Your task to perform on an android device: What's the weather like in Rio de Janeiro? Image 0: 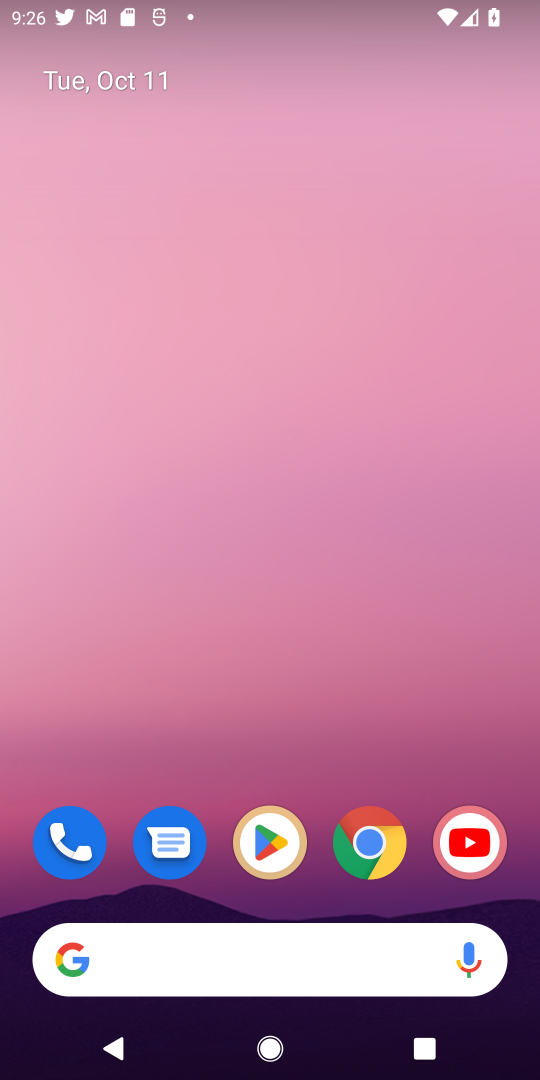
Step 0: click (388, 831)
Your task to perform on an android device: What's the weather like in Rio de Janeiro? Image 1: 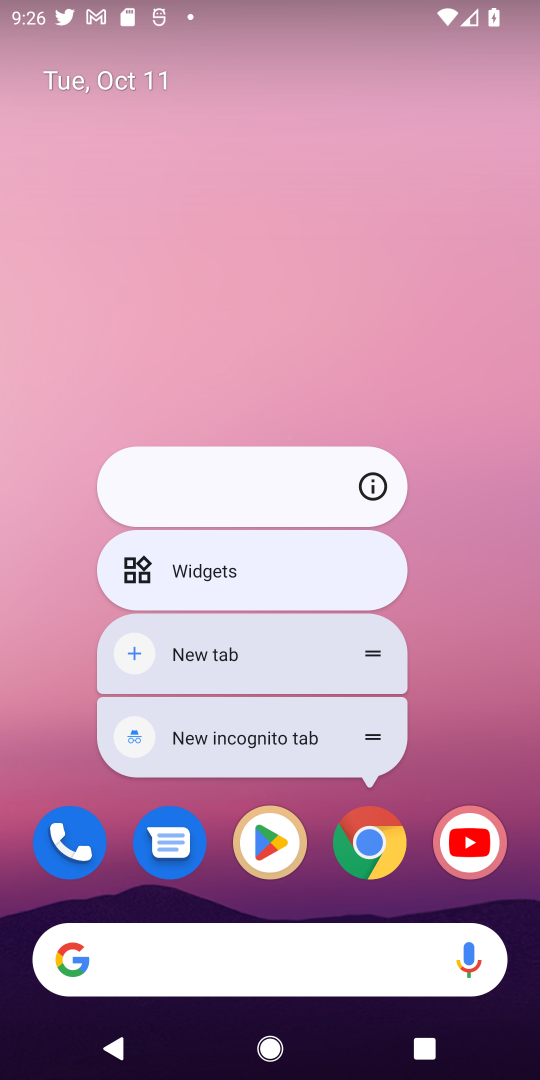
Step 1: click (380, 850)
Your task to perform on an android device: What's the weather like in Rio de Janeiro? Image 2: 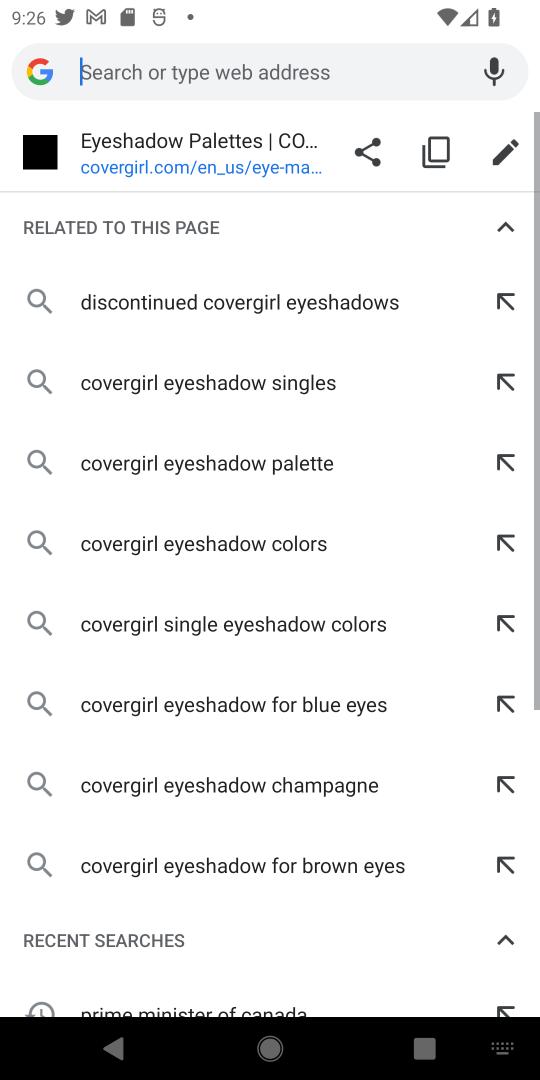
Step 2: click (189, 67)
Your task to perform on an android device: What's the weather like in Rio de Janeiro? Image 3: 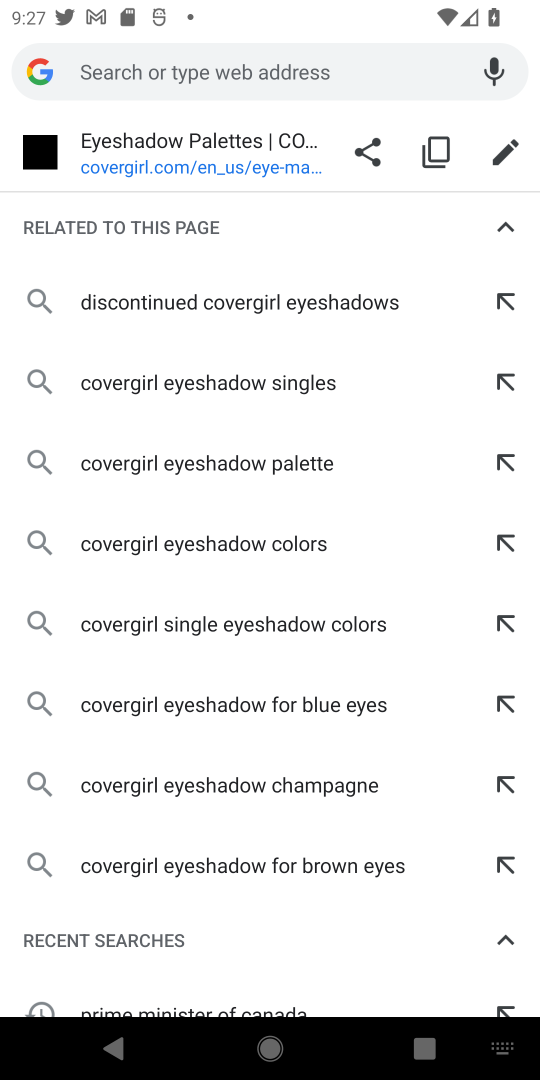
Step 3: type "weather like in rio de janeiro"
Your task to perform on an android device: What's the weather like in Rio de Janeiro? Image 4: 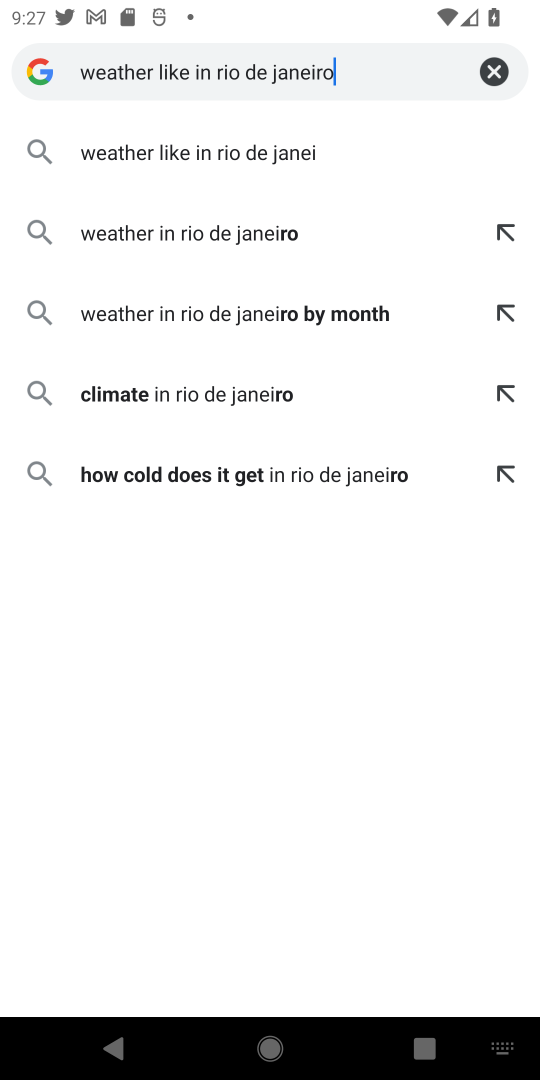
Step 4: type ""
Your task to perform on an android device: What's the weather like in Rio de Janeiro? Image 5: 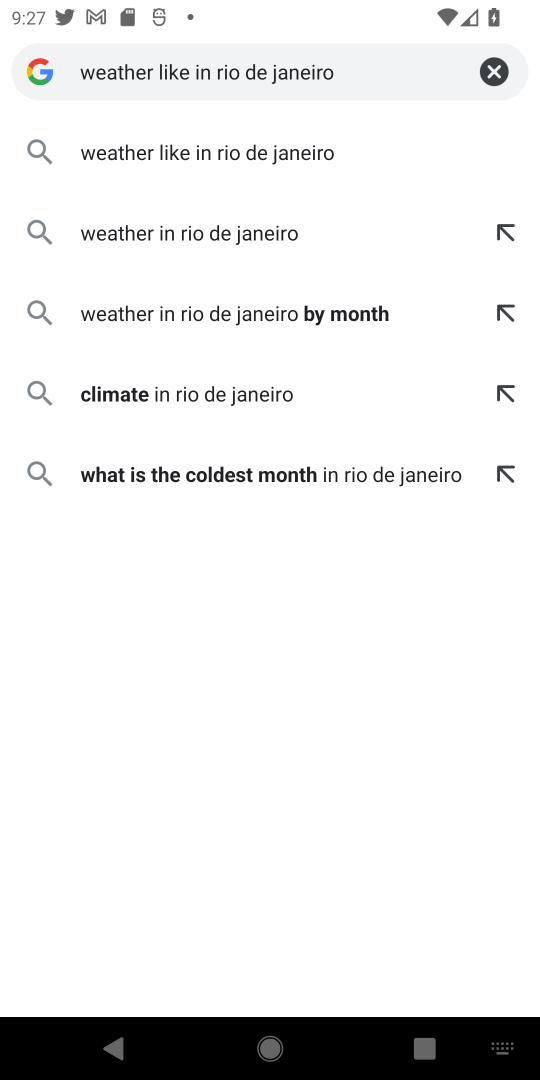
Step 5: click (217, 152)
Your task to perform on an android device: What's the weather like in Rio de Janeiro? Image 6: 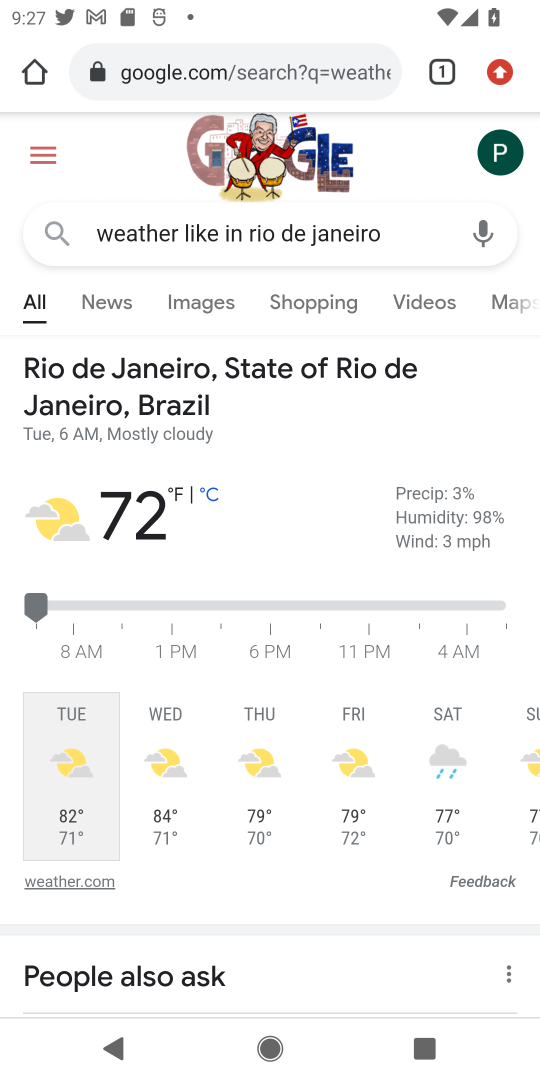
Step 6: task complete